Your task to perform on an android device: What is the recent news? Image 0: 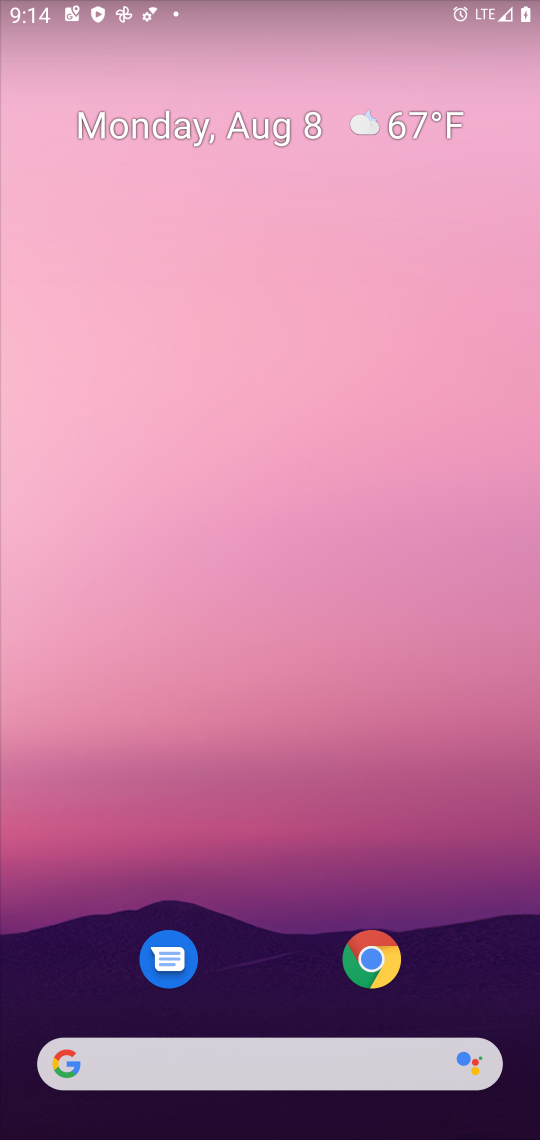
Step 0: drag from (487, 975) to (225, 73)
Your task to perform on an android device: What is the recent news? Image 1: 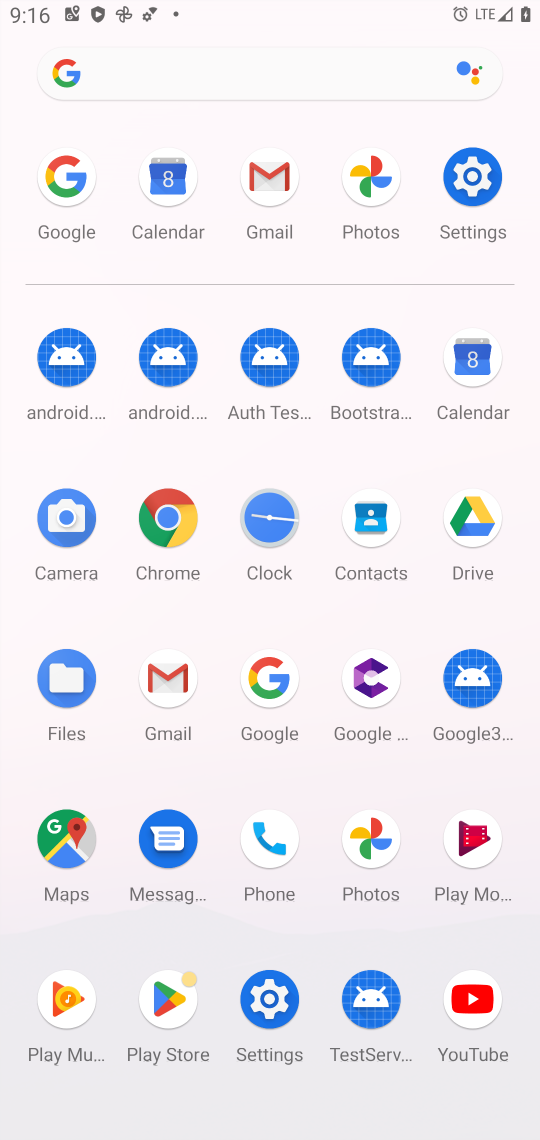
Step 1: click (287, 680)
Your task to perform on an android device: What is the recent news? Image 2: 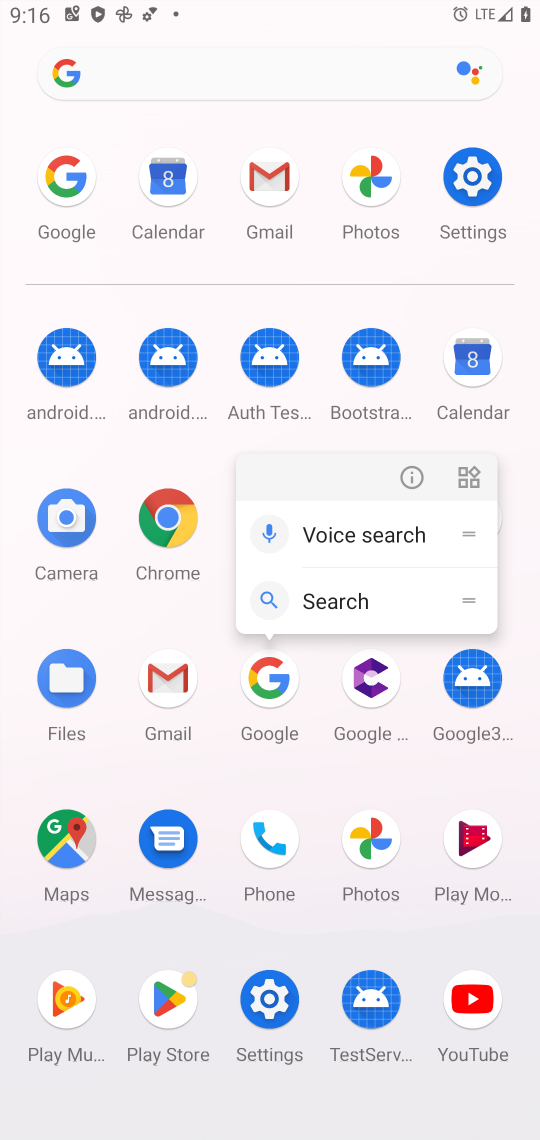
Step 2: click (287, 680)
Your task to perform on an android device: What is the recent news? Image 3: 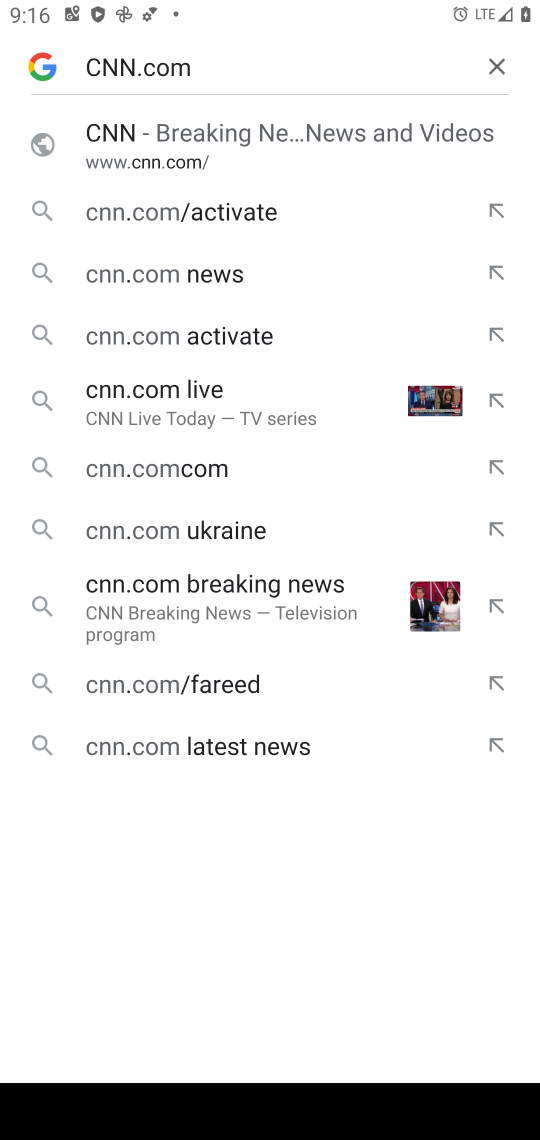
Step 3: click (530, 50)
Your task to perform on an android device: What is the recent news? Image 4: 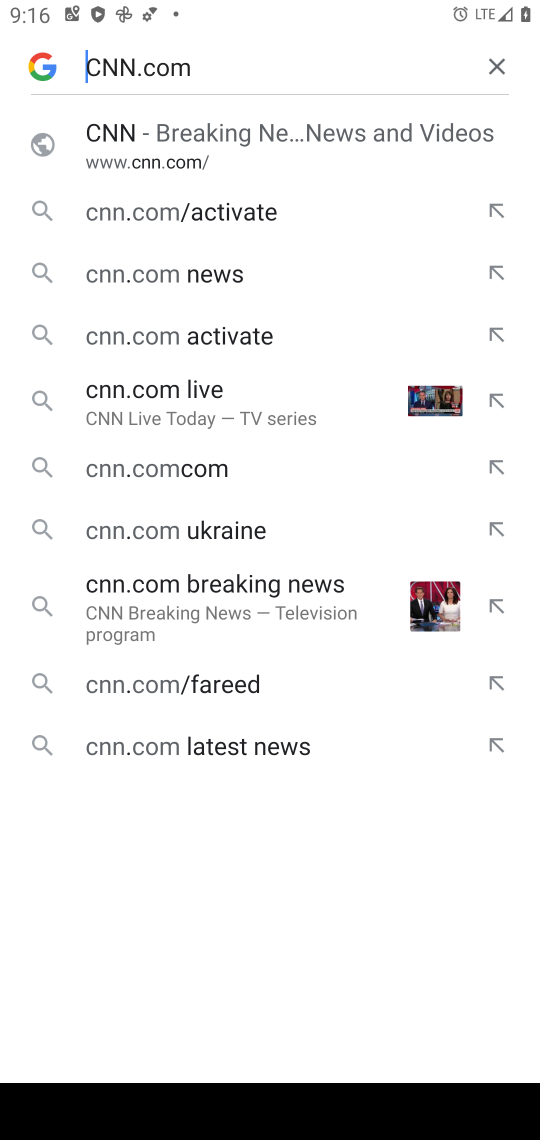
Step 4: click (497, 63)
Your task to perform on an android device: What is the recent news? Image 5: 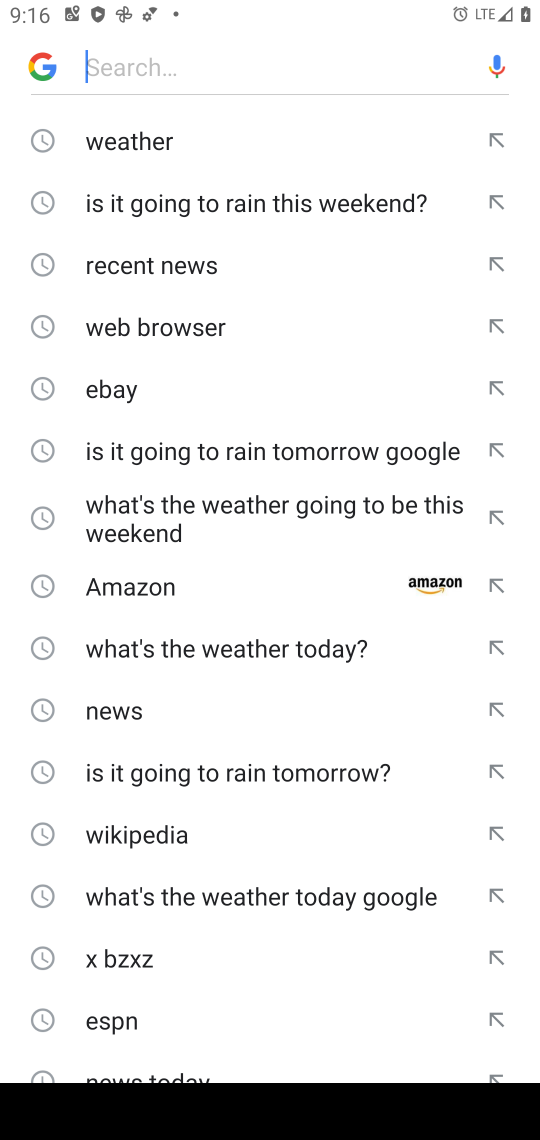
Step 5: click (145, 258)
Your task to perform on an android device: What is the recent news? Image 6: 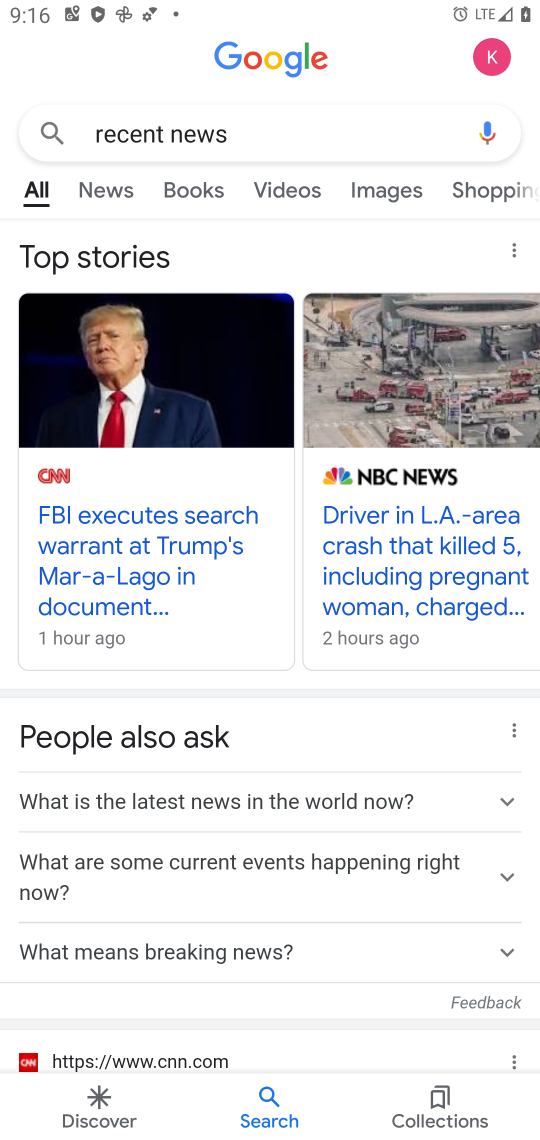
Step 6: task complete